Your task to perform on an android device: Go to Maps Image 0: 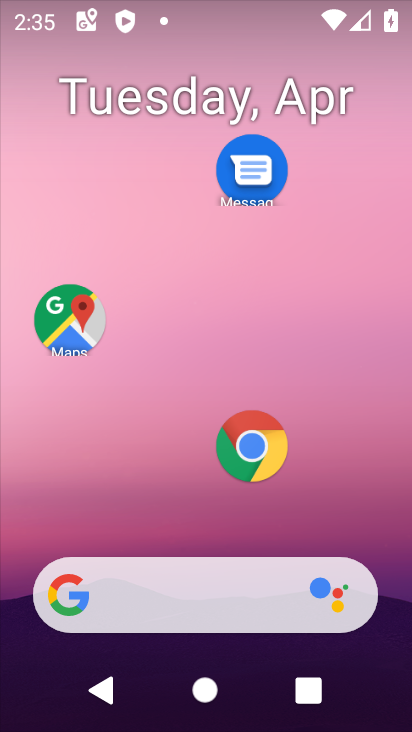
Step 0: click (77, 328)
Your task to perform on an android device: Go to Maps Image 1: 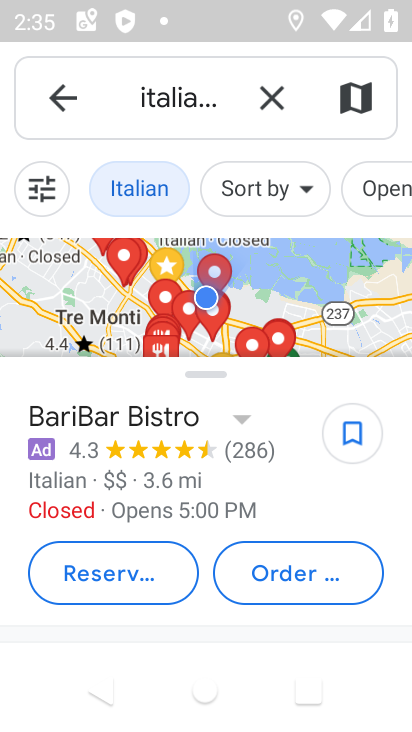
Step 1: task complete